Your task to perform on an android device: toggle wifi Image 0: 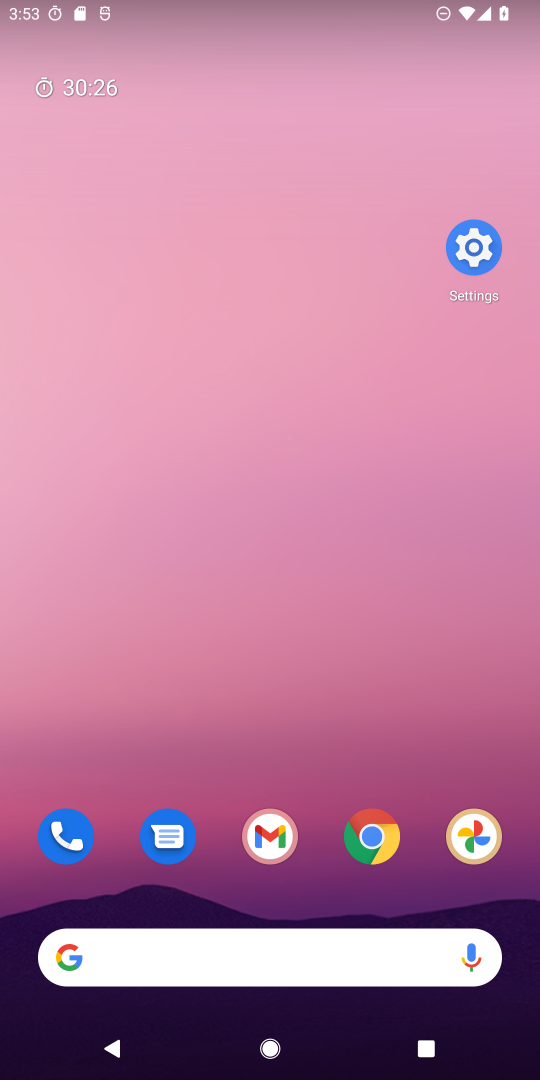
Step 0: drag from (278, 892) to (315, 77)
Your task to perform on an android device: toggle wifi Image 1: 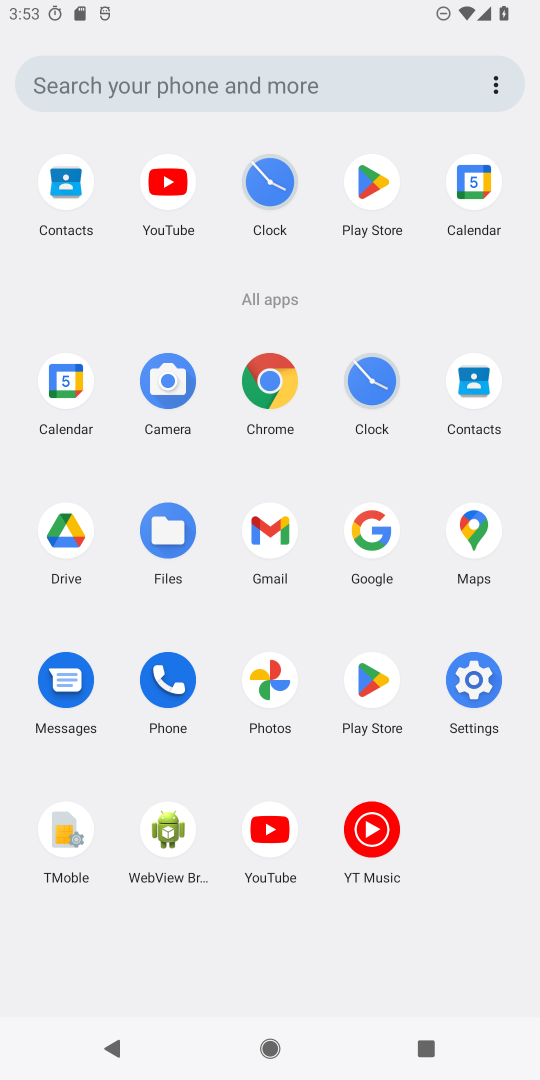
Step 1: click (475, 693)
Your task to perform on an android device: toggle wifi Image 2: 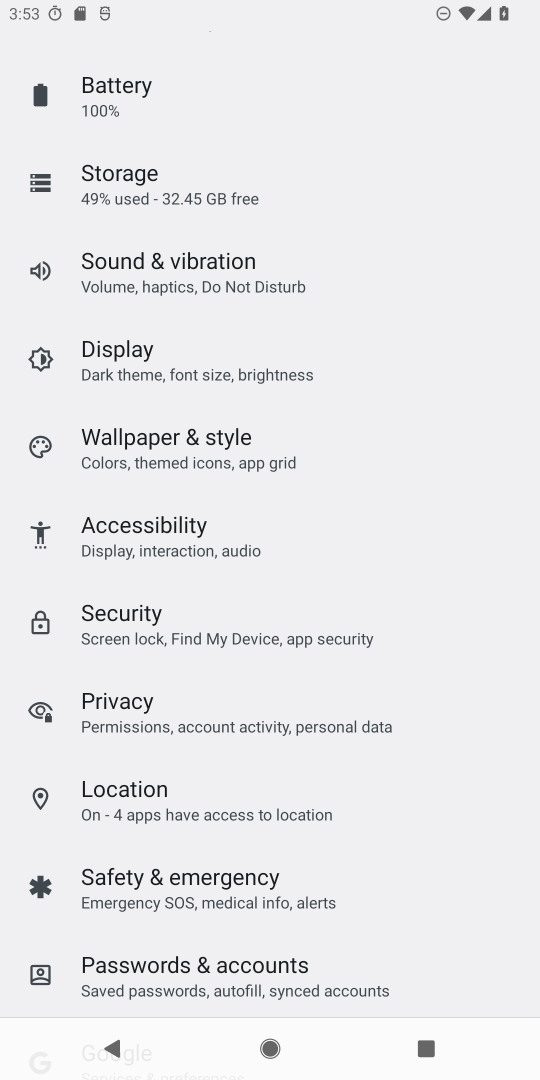
Step 2: drag from (203, 210) to (218, 846)
Your task to perform on an android device: toggle wifi Image 3: 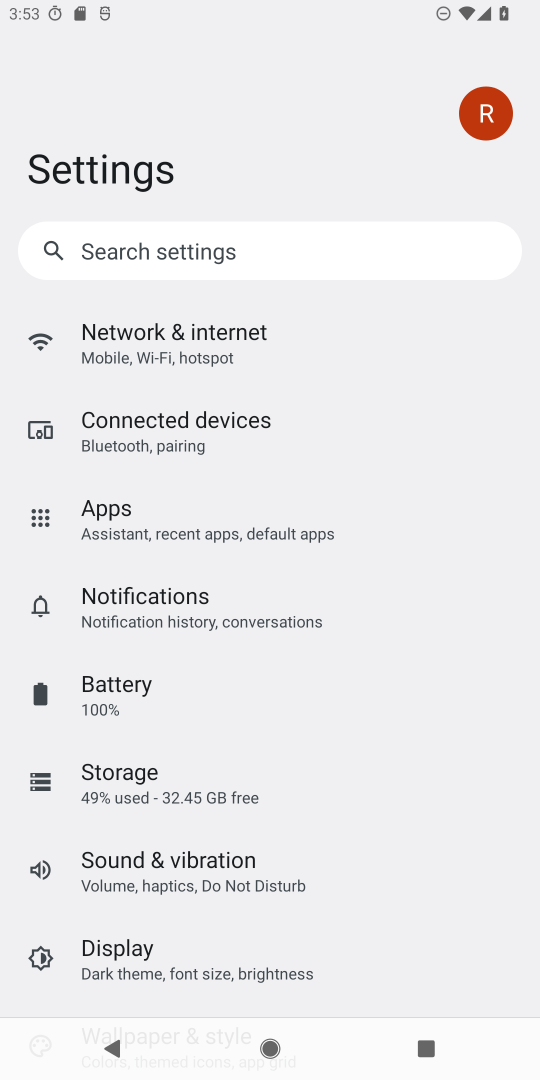
Step 3: click (180, 338)
Your task to perform on an android device: toggle wifi Image 4: 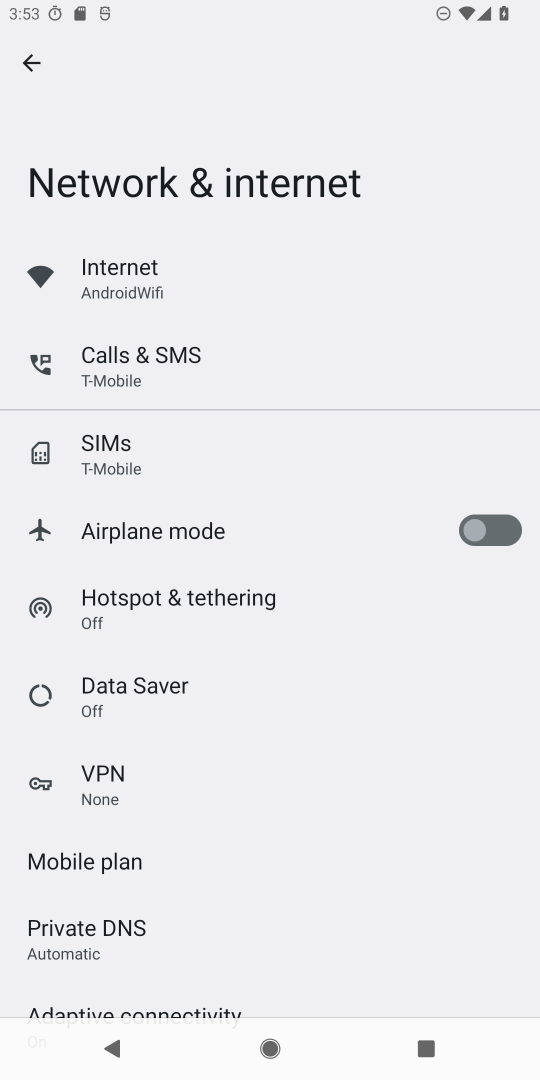
Step 4: click (145, 282)
Your task to perform on an android device: toggle wifi Image 5: 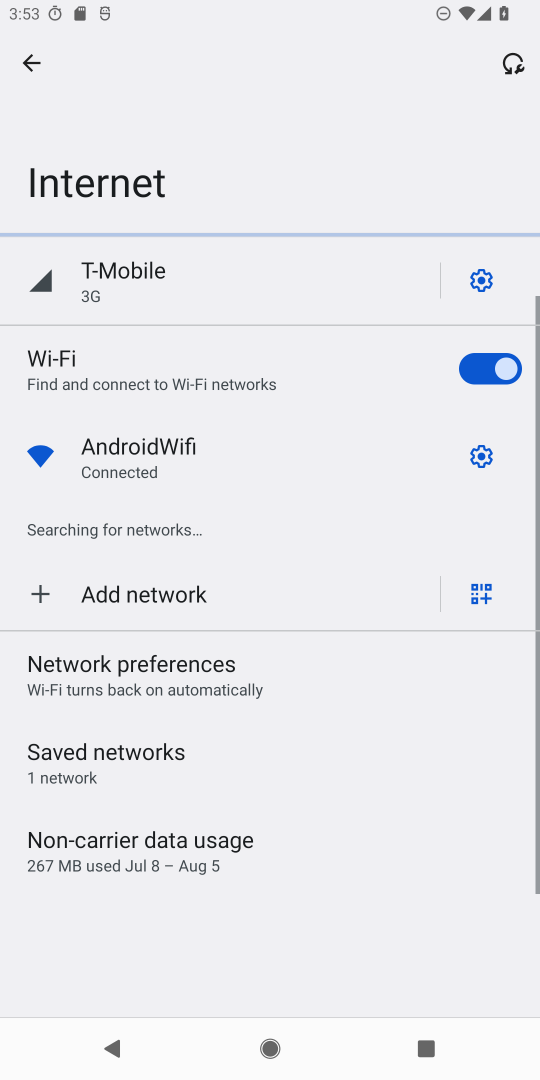
Step 5: click (453, 367)
Your task to perform on an android device: toggle wifi Image 6: 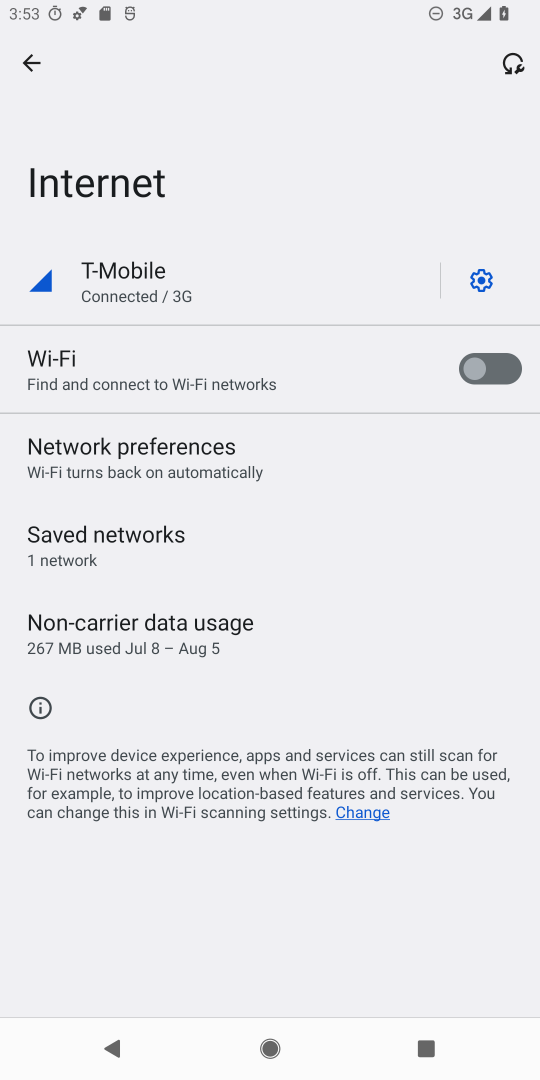
Step 6: task complete